Your task to perform on an android device: Open Reddit.com Image 0: 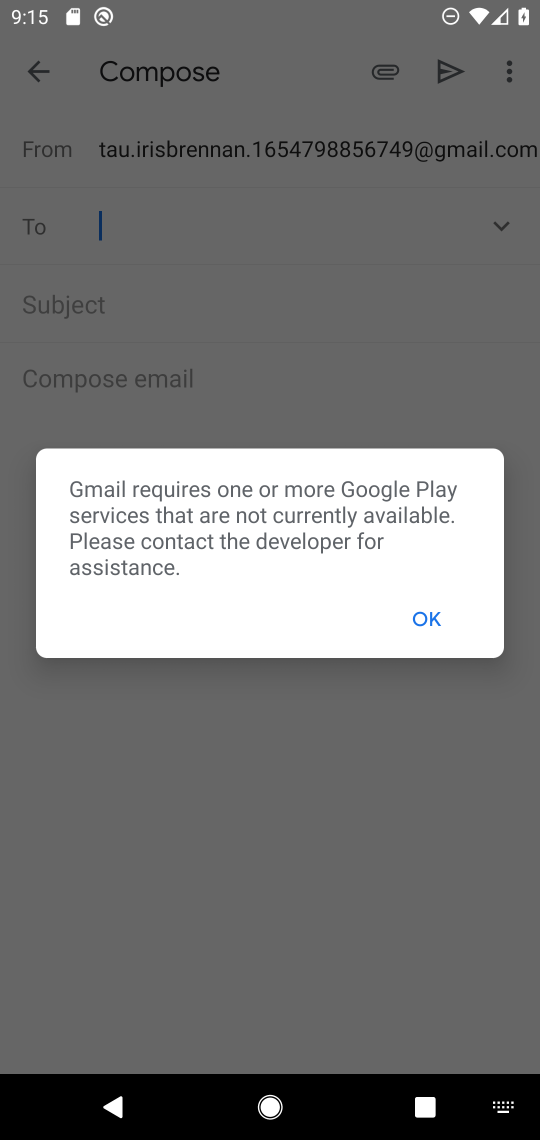
Step 0: press home button
Your task to perform on an android device: Open Reddit.com Image 1: 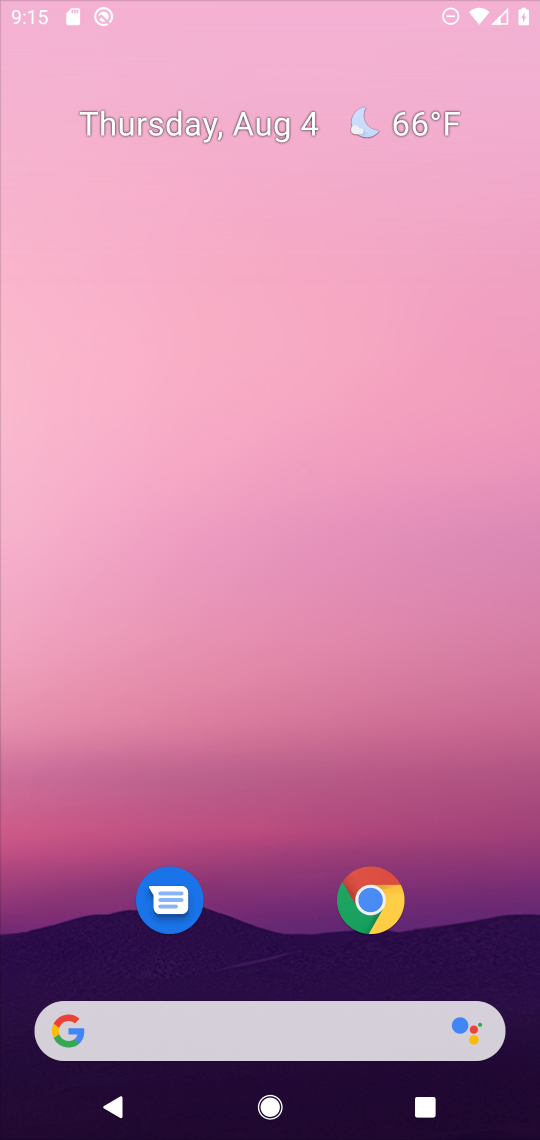
Step 1: click (428, 628)
Your task to perform on an android device: Open Reddit.com Image 2: 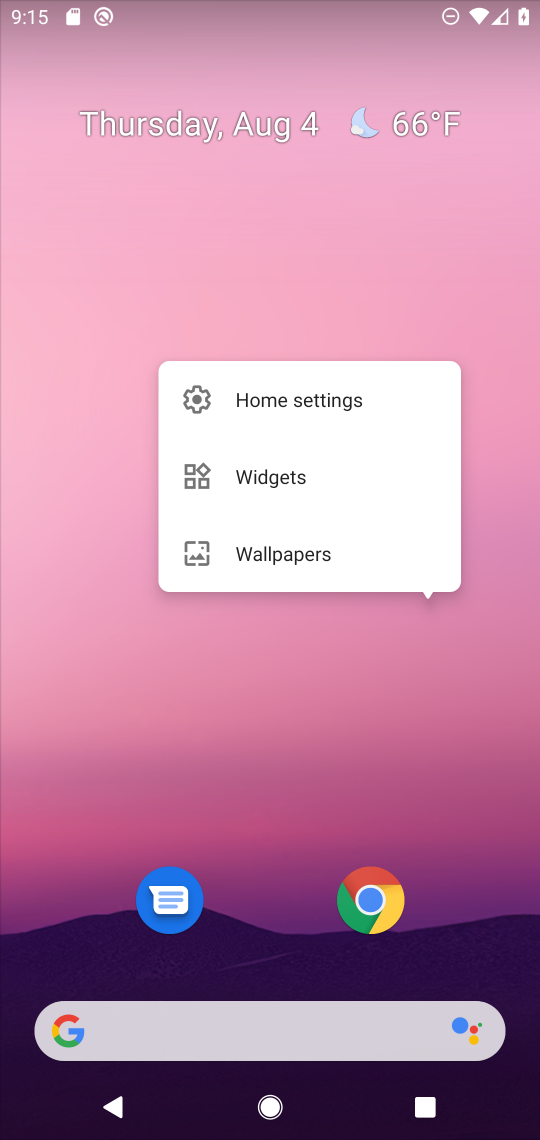
Step 2: click (373, 732)
Your task to perform on an android device: Open Reddit.com Image 3: 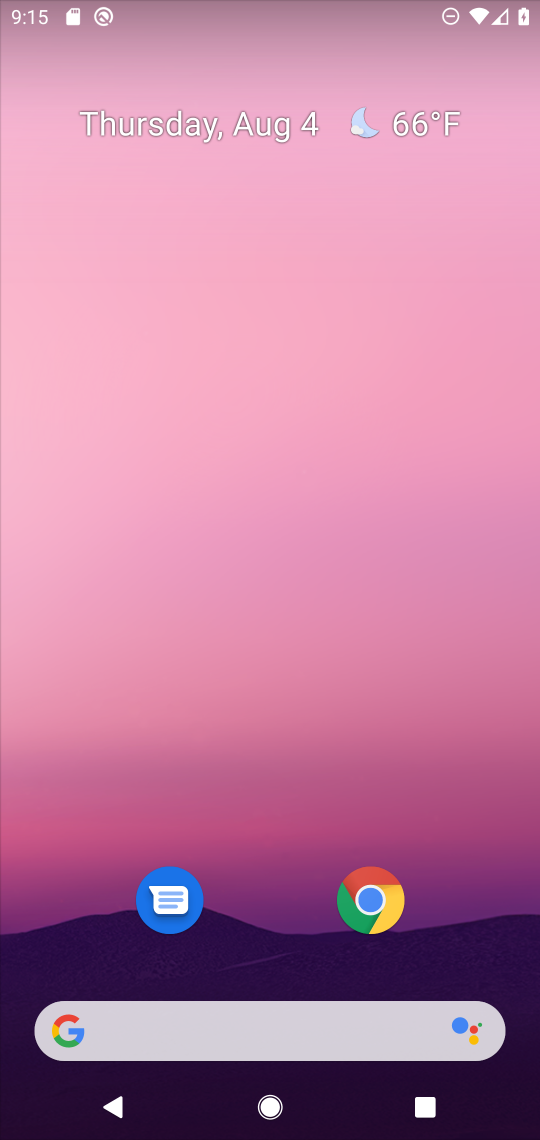
Step 3: click (373, 929)
Your task to perform on an android device: Open Reddit.com Image 4: 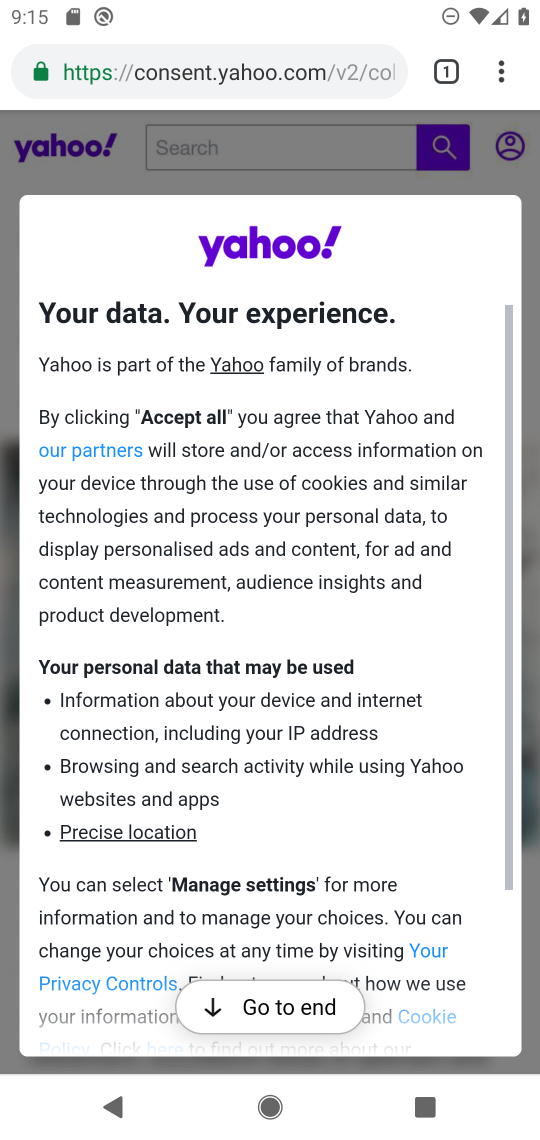
Step 4: click (288, 61)
Your task to perform on an android device: Open Reddit.com Image 5: 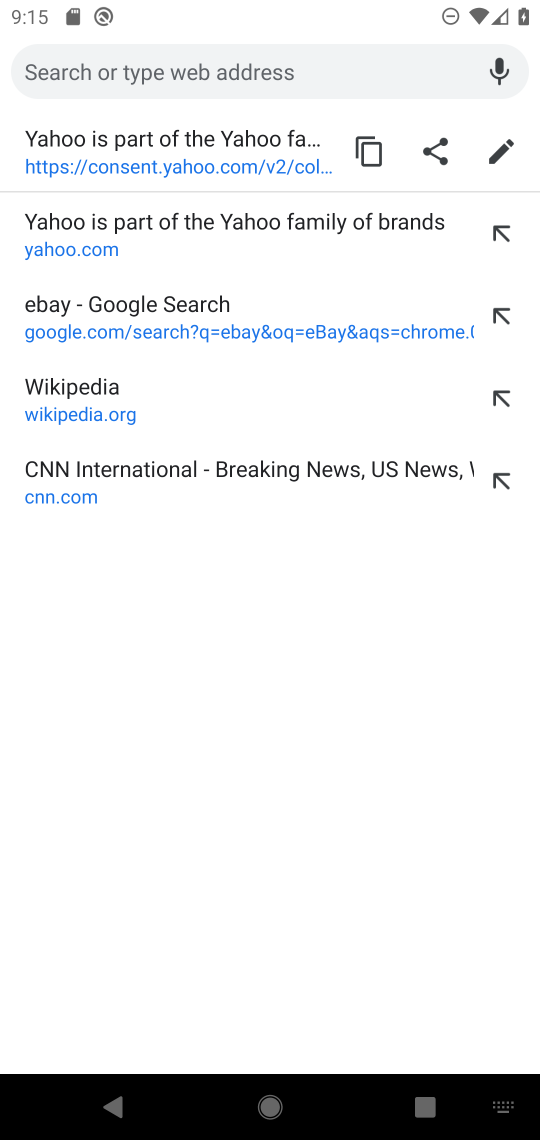
Step 5: type "Reddit.com"
Your task to perform on an android device: Open Reddit.com Image 6: 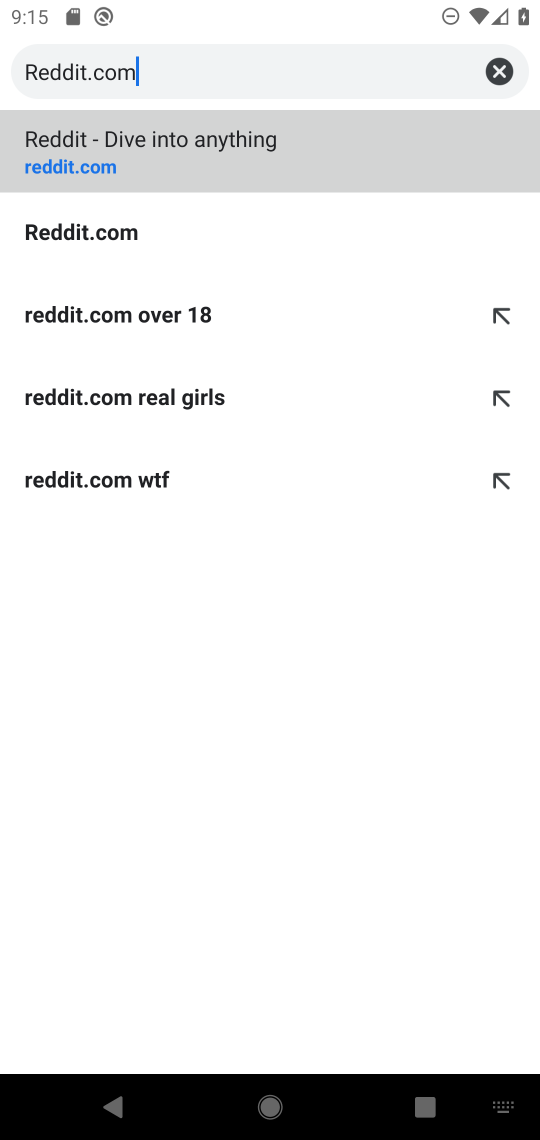
Step 6: click (35, 147)
Your task to perform on an android device: Open Reddit.com Image 7: 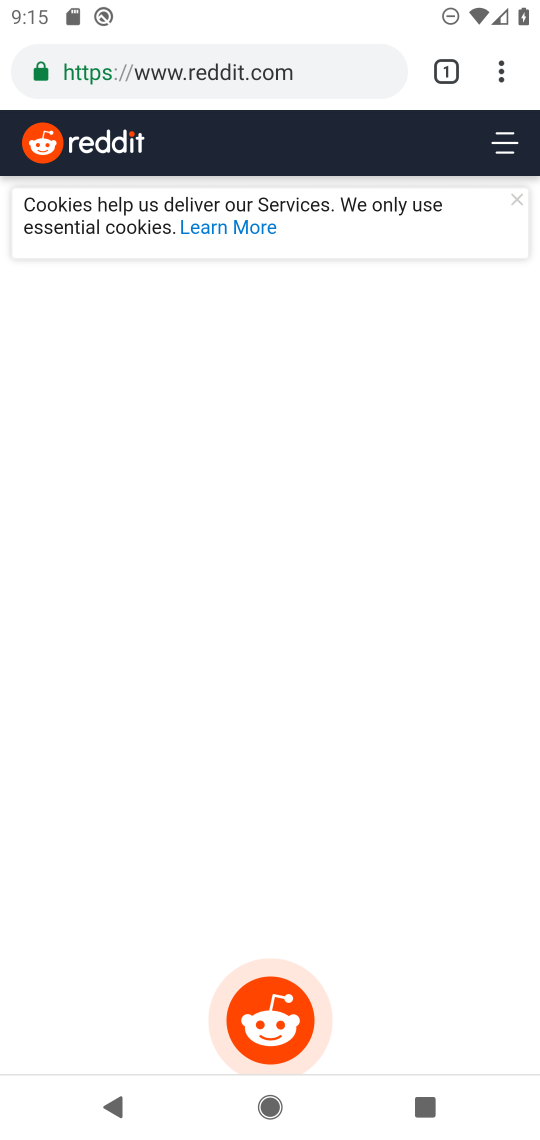
Step 7: task complete